Your task to perform on an android device: Play the last video I watched on Youtube Image 0: 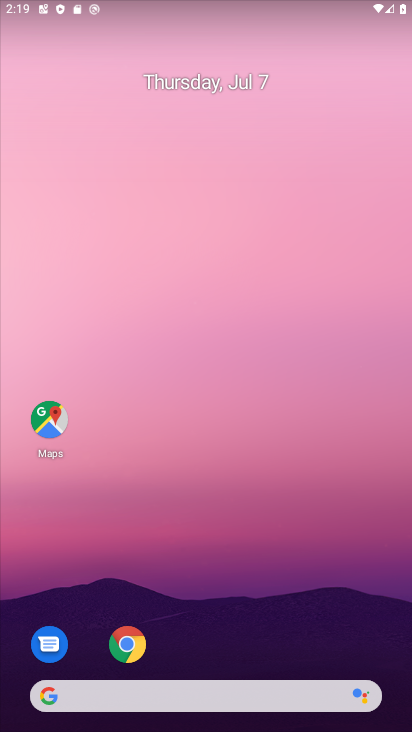
Step 0: press home button
Your task to perform on an android device: Play the last video I watched on Youtube Image 1: 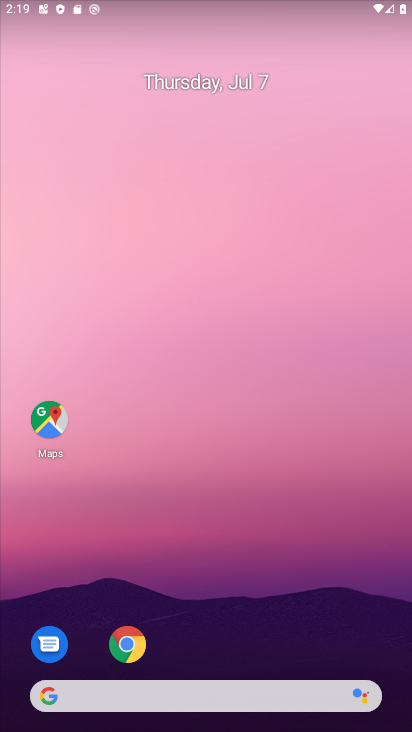
Step 1: drag from (298, 651) to (219, 255)
Your task to perform on an android device: Play the last video I watched on Youtube Image 2: 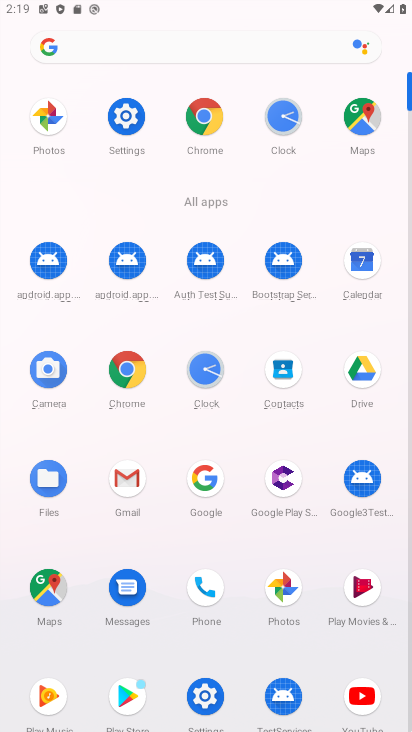
Step 2: click (361, 691)
Your task to perform on an android device: Play the last video I watched on Youtube Image 3: 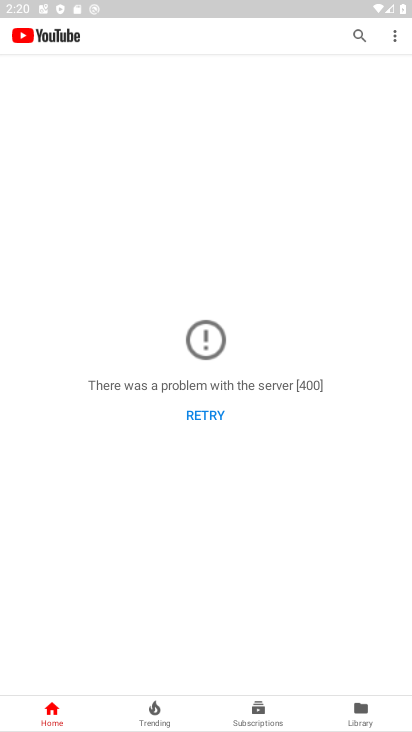
Step 3: click (202, 411)
Your task to perform on an android device: Play the last video I watched on Youtube Image 4: 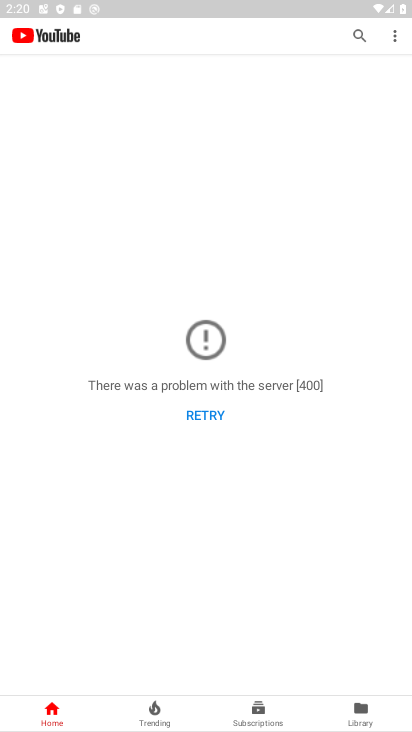
Step 4: click (202, 411)
Your task to perform on an android device: Play the last video I watched on Youtube Image 5: 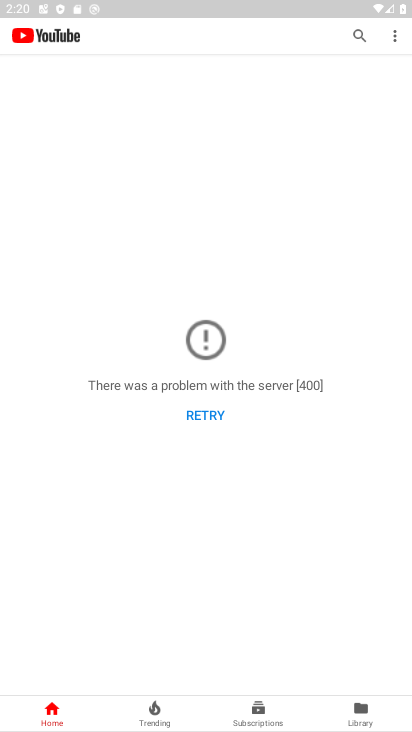
Step 5: click (202, 411)
Your task to perform on an android device: Play the last video I watched on Youtube Image 6: 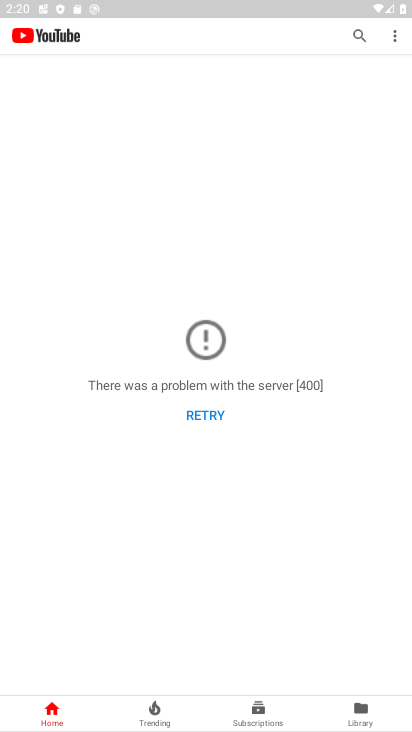
Step 6: task complete